Your task to perform on an android device: turn pop-ups on in chrome Image 0: 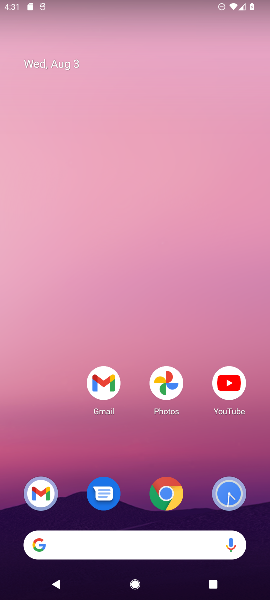
Step 0: drag from (72, 449) to (62, 247)
Your task to perform on an android device: turn pop-ups on in chrome Image 1: 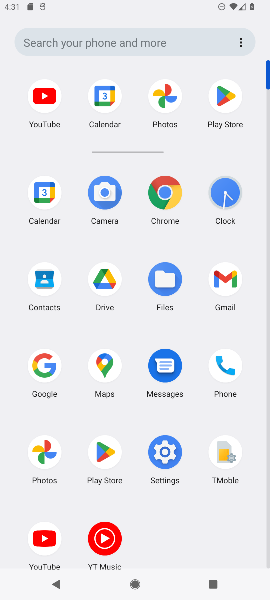
Step 1: click (167, 202)
Your task to perform on an android device: turn pop-ups on in chrome Image 2: 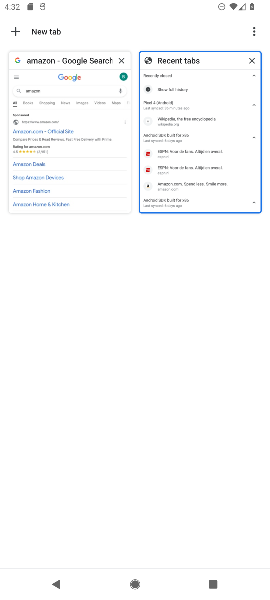
Step 2: click (257, 30)
Your task to perform on an android device: turn pop-ups on in chrome Image 3: 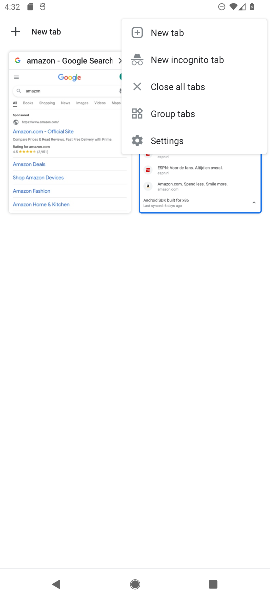
Step 3: click (183, 140)
Your task to perform on an android device: turn pop-ups on in chrome Image 4: 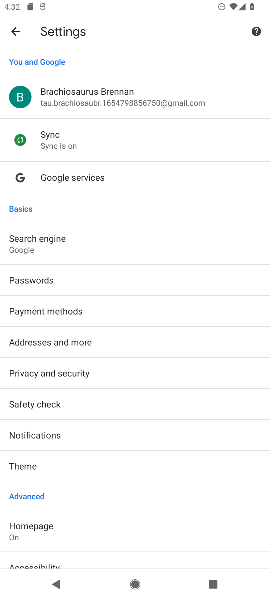
Step 4: drag from (171, 469) to (178, 302)
Your task to perform on an android device: turn pop-ups on in chrome Image 5: 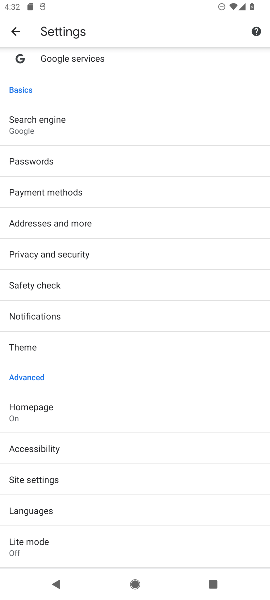
Step 5: drag from (147, 500) to (152, 326)
Your task to perform on an android device: turn pop-ups on in chrome Image 6: 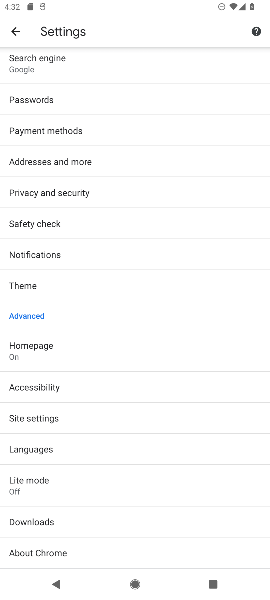
Step 6: click (141, 423)
Your task to perform on an android device: turn pop-ups on in chrome Image 7: 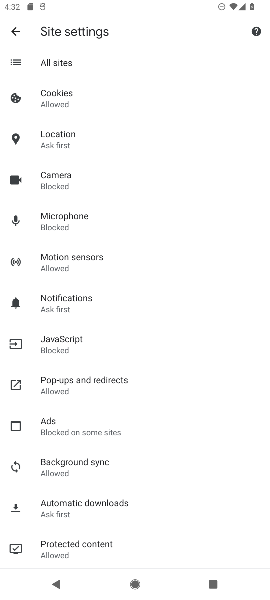
Step 7: drag from (199, 441) to (199, 281)
Your task to perform on an android device: turn pop-ups on in chrome Image 8: 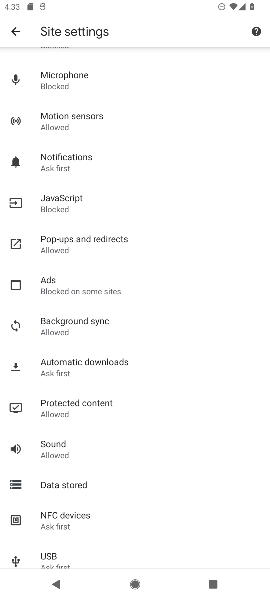
Step 8: drag from (180, 386) to (188, 286)
Your task to perform on an android device: turn pop-ups on in chrome Image 9: 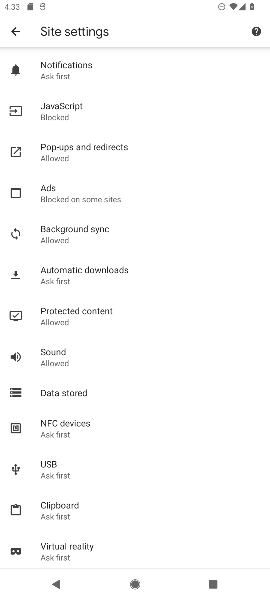
Step 9: drag from (167, 424) to (169, 273)
Your task to perform on an android device: turn pop-ups on in chrome Image 10: 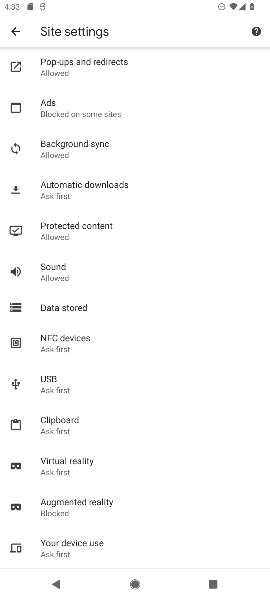
Step 10: drag from (174, 156) to (176, 317)
Your task to perform on an android device: turn pop-ups on in chrome Image 11: 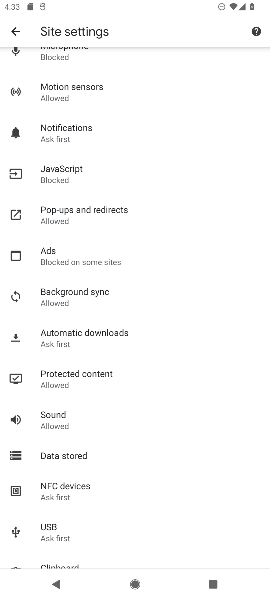
Step 11: click (133, 216)
Your task to perform on an android device: turn pop-ups on in chrome Image 12: 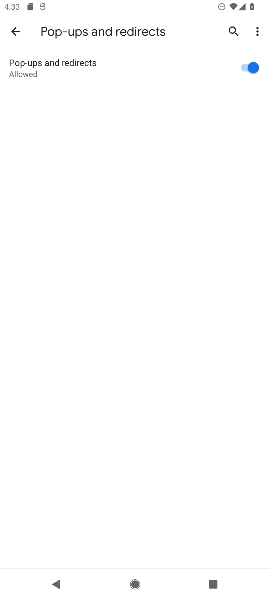
Step 12: task complete